Your task to perform on an android device: toggle notification dots Image 0: 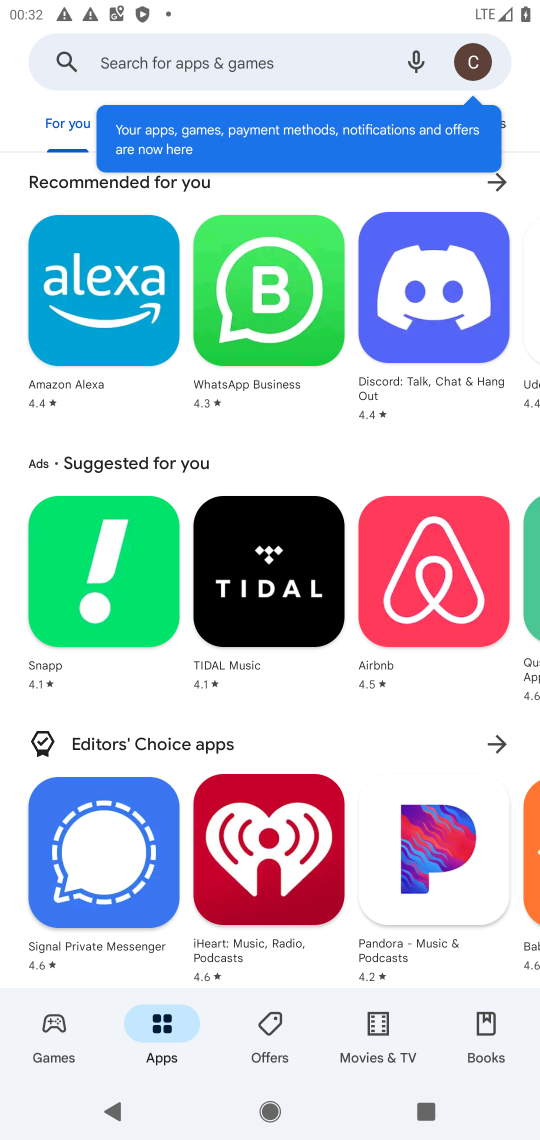
Step 0: press home button
Your task to perform on an android device: toggle notification dots Image 1: 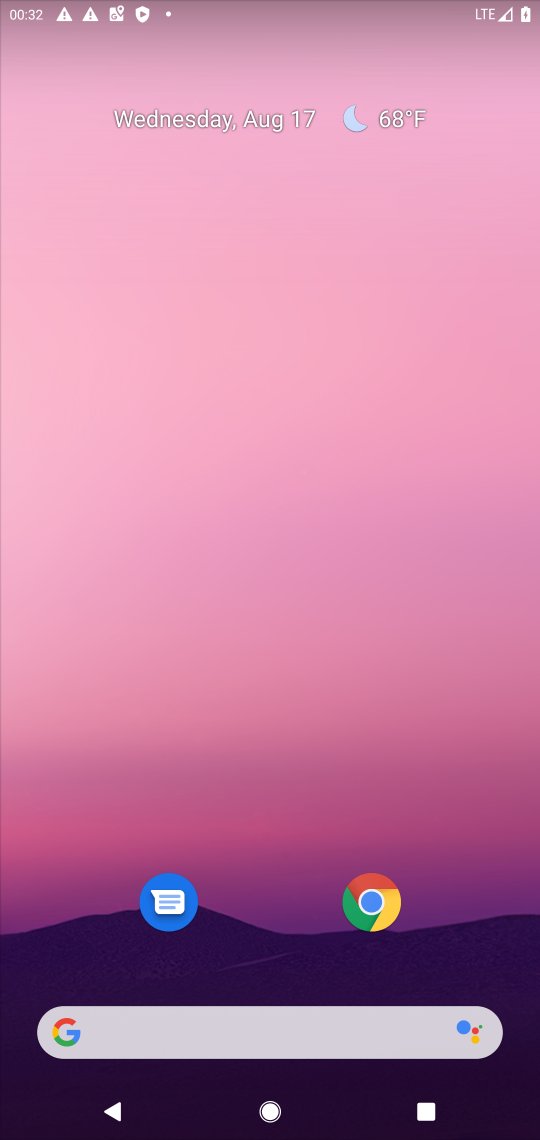
Step 1: drag from (306, 717) to (387, 100)
Your task to perform on an android device: toggle notification dots Image 2: 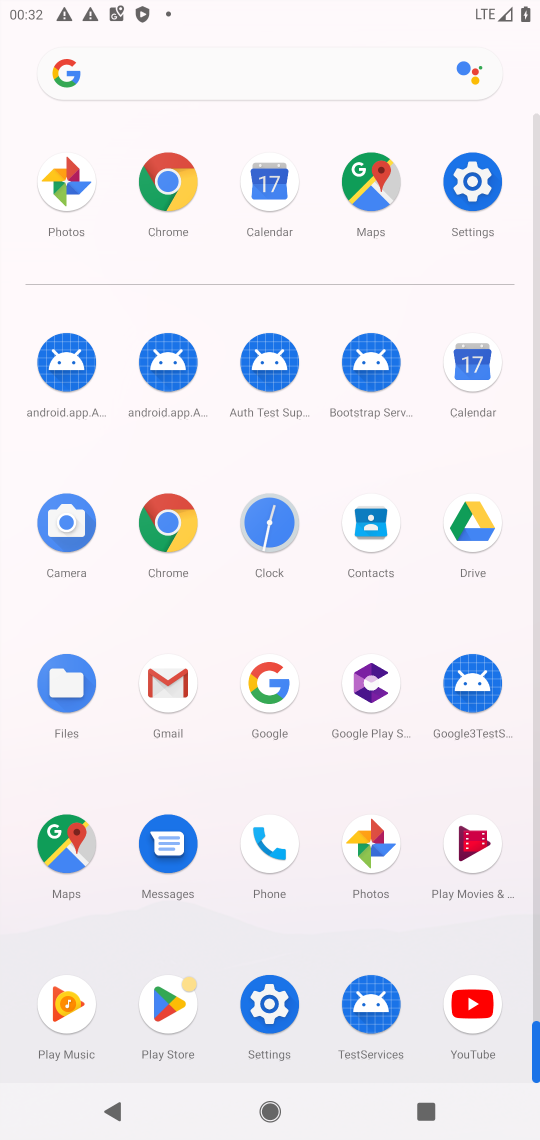
Step 2: click (296, 1004)
Your task to perform on an android device: toggle notification dots Image 3: 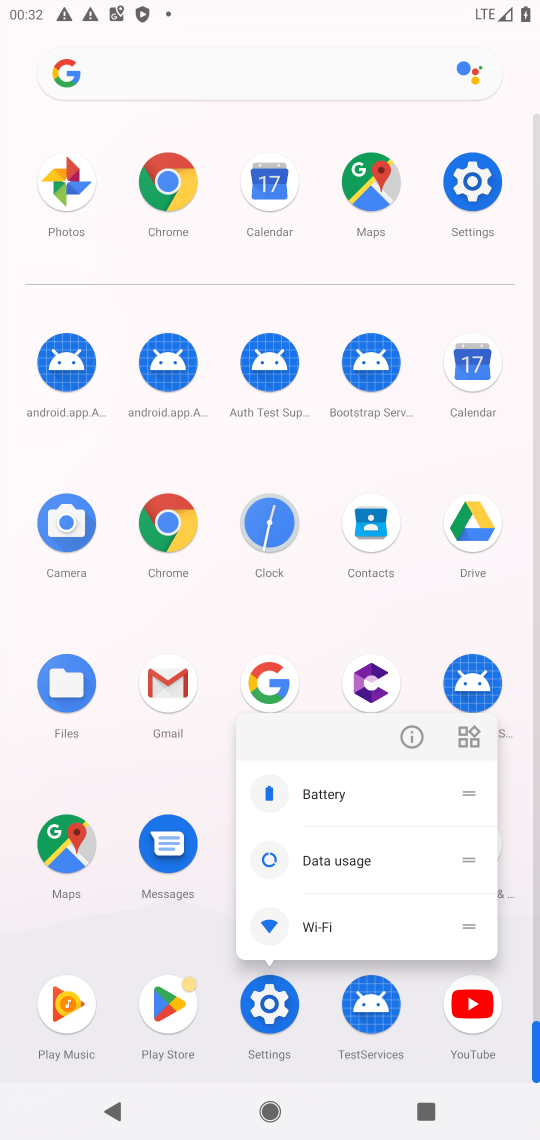
Step 3: click (293, 1002)
Your task to perform on an android device: toggle notification dots Image 4: 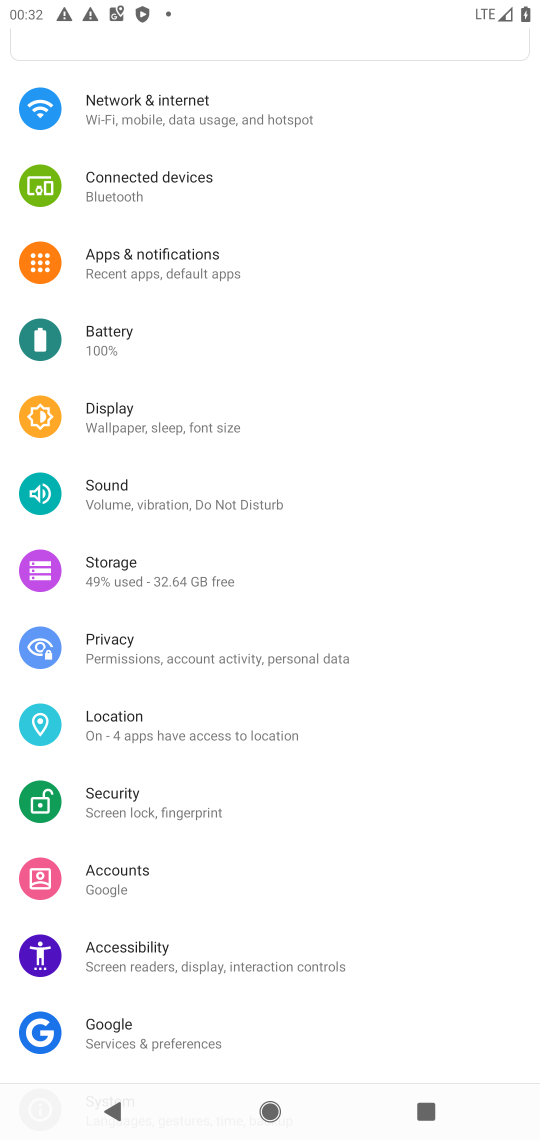
Step 4: click (204, 265)
Your task to perform on an android device: toggle notification dots Image 5: 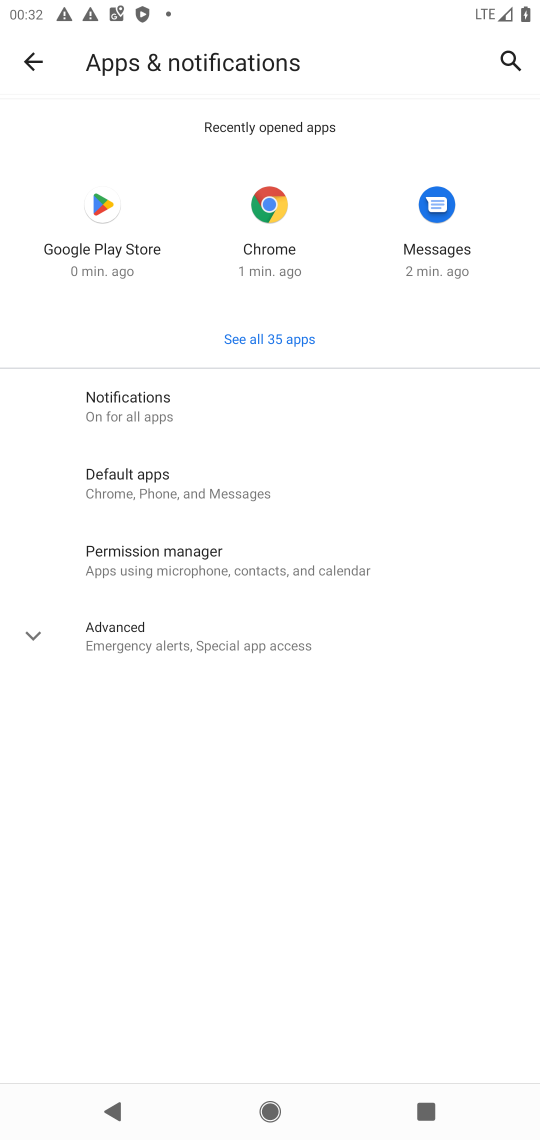
Step 5: click (152, 412)
Your task to perform on an android device: toggle notification dots Image 6: 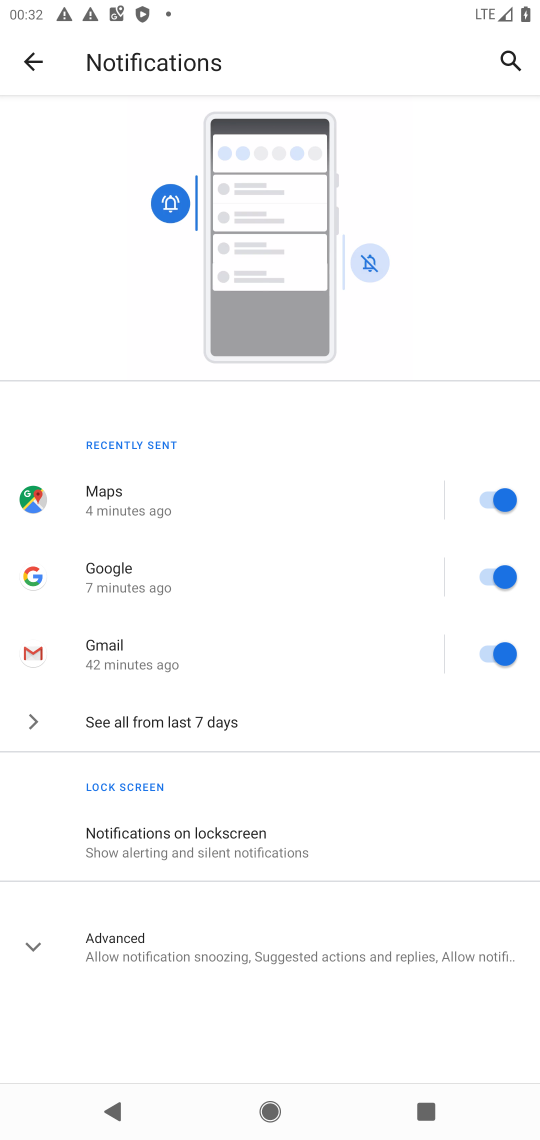
Step 6: click (188, 958)
Your task to perform on an android device: toggle notification dots Image 7: 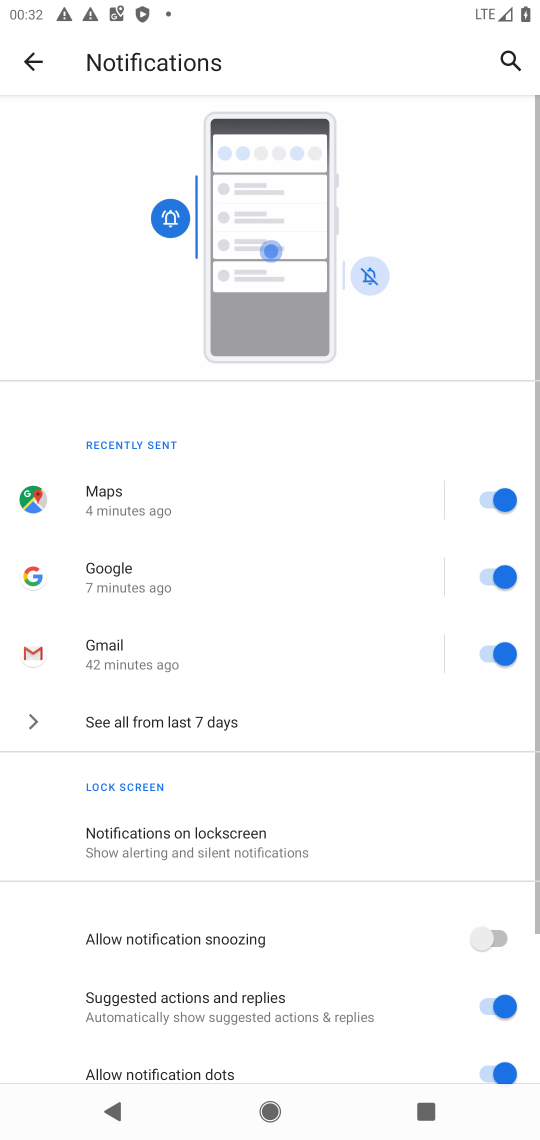
Step 7: drag from (194, 1034) to (262, 633)
Your task to perform on an android device: toggle notification dots Image 8: 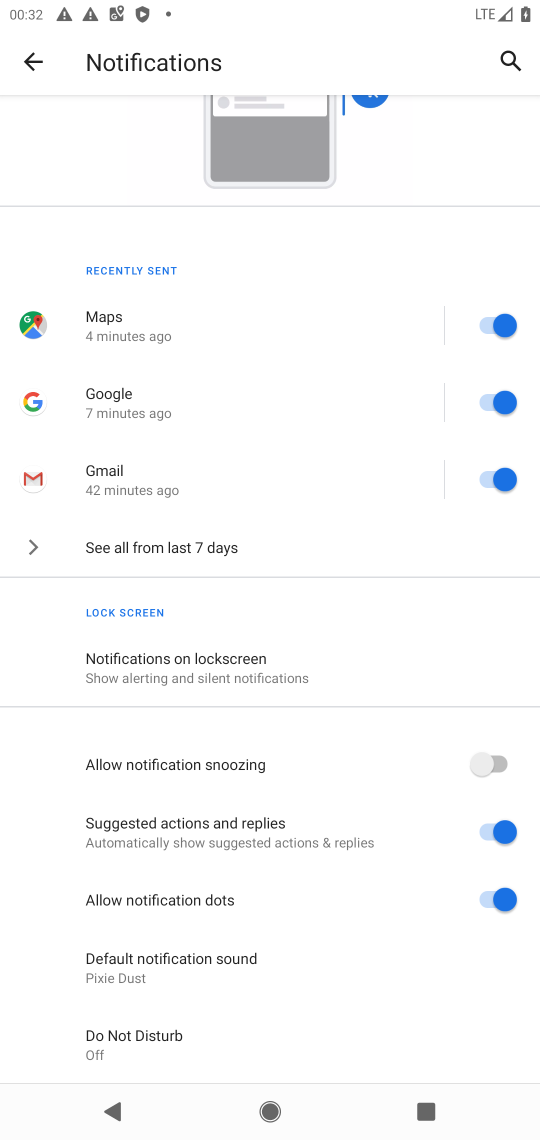
Step 8: click (469, 892)
Your task to perform on an android device: toggle notification dots Image 9: 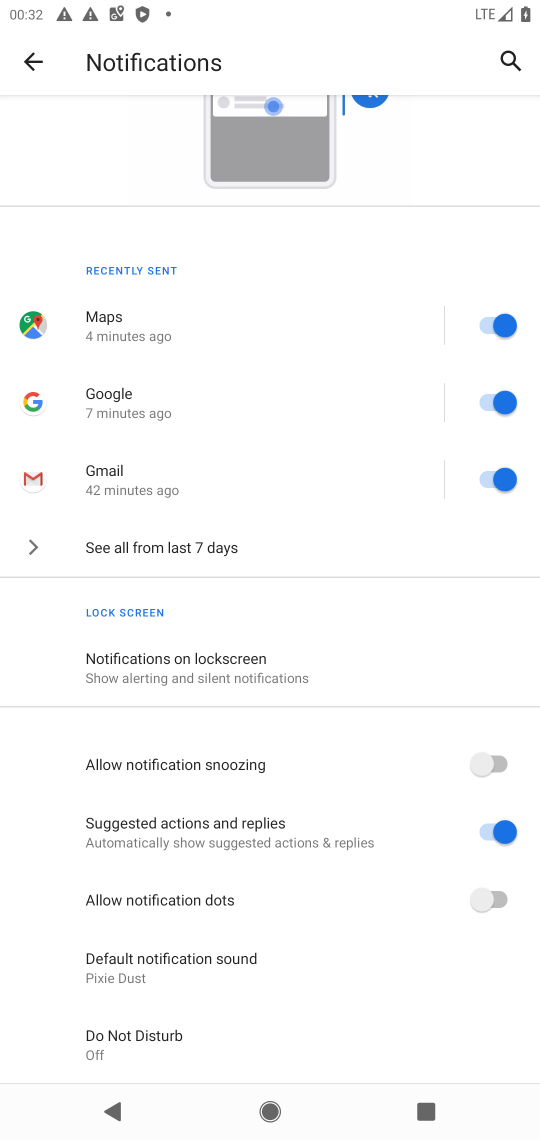
Step 9: task complete